Your task to perform on an android device: move a message to another label in the gmail app Image 0: 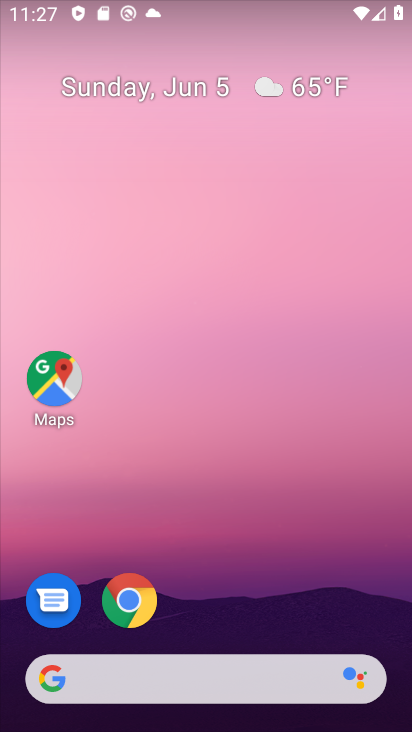
Step 0: drag from (401, 701) to (259, 5)
Your task to perform on an android device: move a message to another label in the gmail app Image 1: 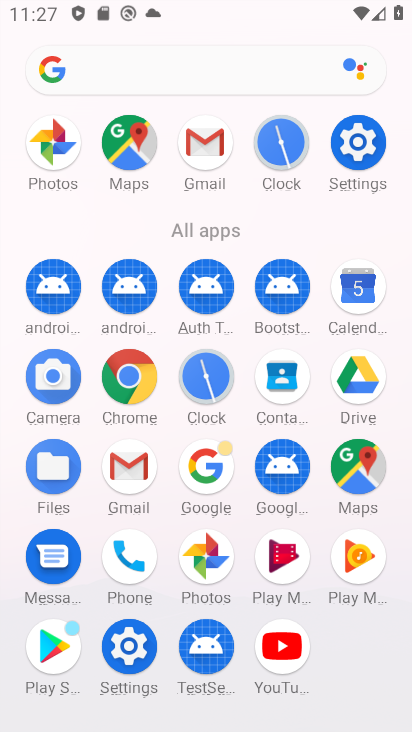
Step 1: click (209, 151)
Your task to perform on an android device: move a message to another label in the gmail app Image 2: 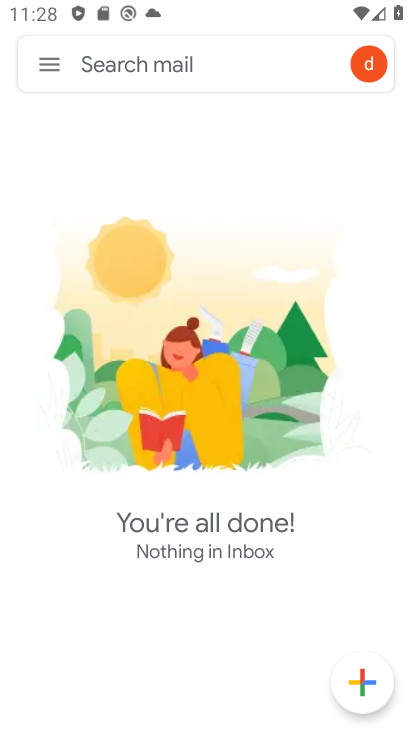
Step 2: task complete